Your task to perform on an android device: turn on the 12-hour format for clock Image 0: 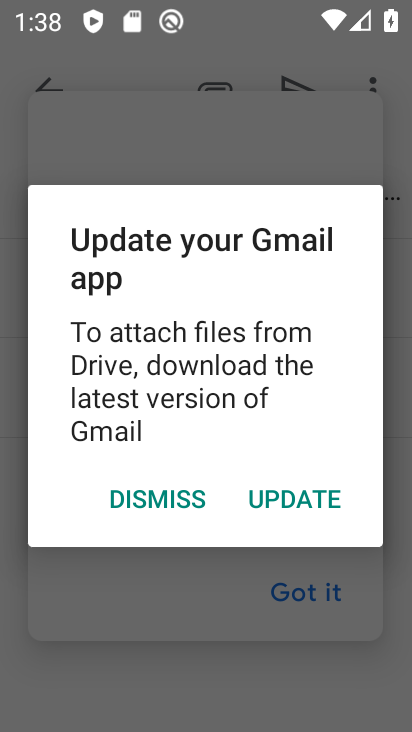
Step 0: press home button
Your task to perform on an android device: turn on the 12-hour format for clock Image 1: 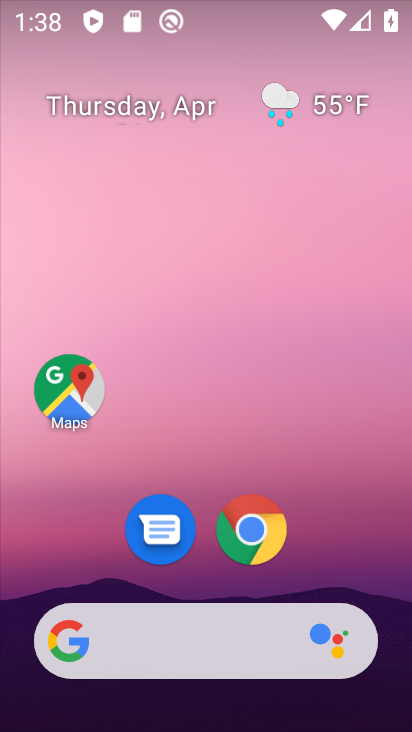
Step 1: drag from (292, 477) to (247, 72)
Your task to perform on an android device: turn on the 12-hour format for clock Image 2: 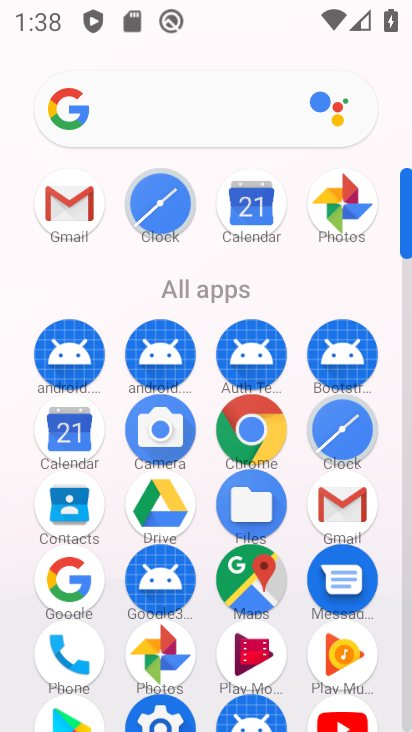
Step 2: click (349, 426)
Your task to perform on an android device: turn on the 12-hour format for clock Image 3: 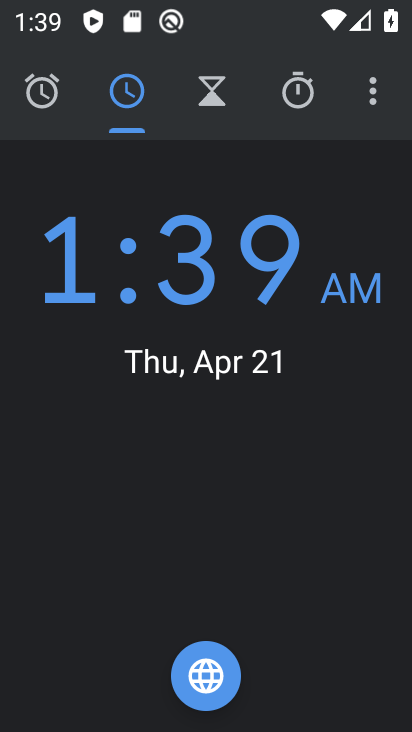
Step 3: click (368, 100)
Your task to perform on an android device: turn on the 12-hour format for clock Image 4: 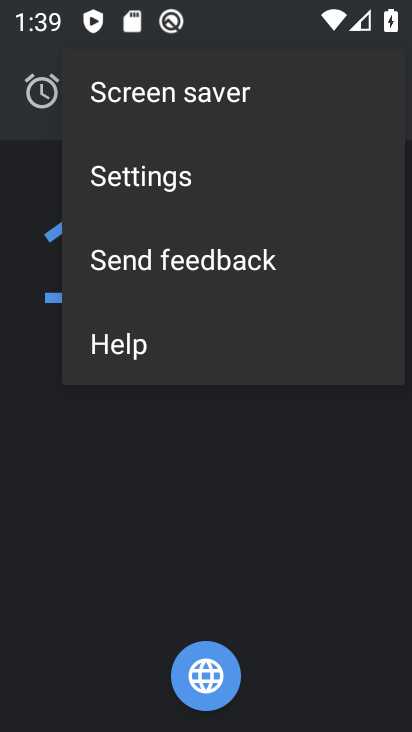
Step 4: click (191, 203)
Your task to perform on an android device: turn on the 12-hour format for clock Image 5: 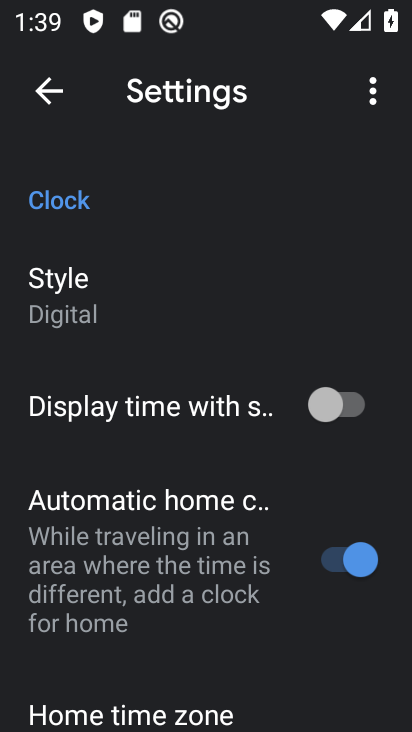
Step 5: drag from (193, 478) to (200, 165)
Your task to perform on an android device: turn on the 12-hour format for clock Image 6: 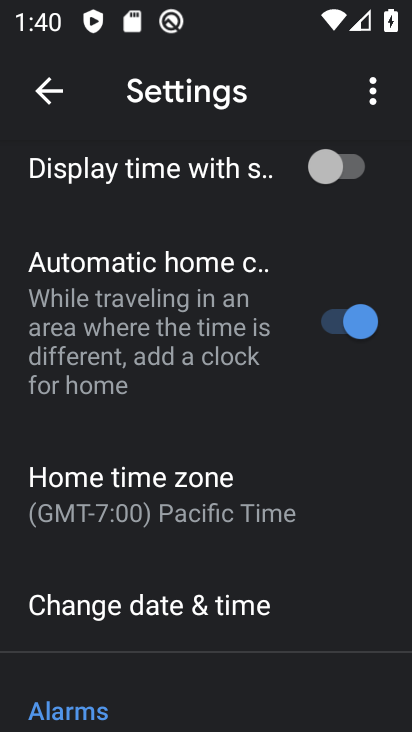
Step 6: drag from (188, 521) to (170, 265)
Your task to perform on an android device: turn on the 12-hour format for clock Image 7: 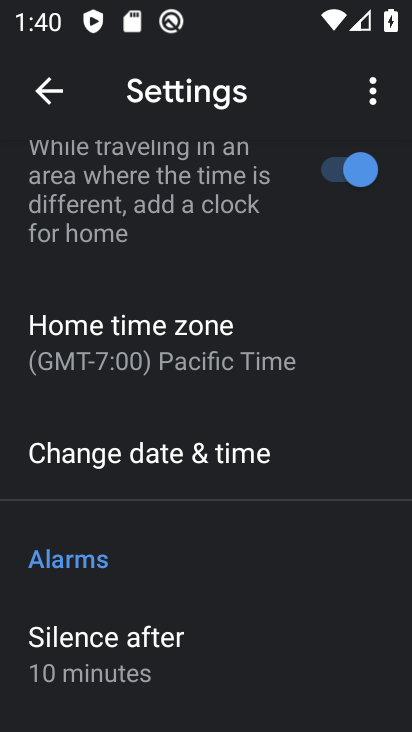
Step 7: click (182, 439)
Your task to perform on an android device: turn on the 12-hour format for clock Image 8: 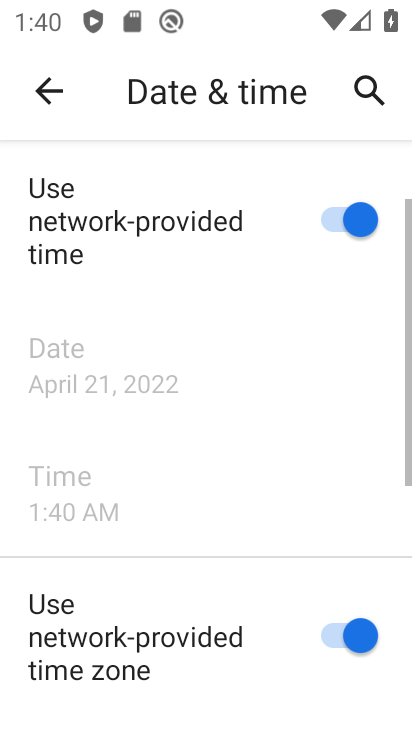
Step 8: task complete